Your task to perform on an android device: turn off sleep mode Image 0: 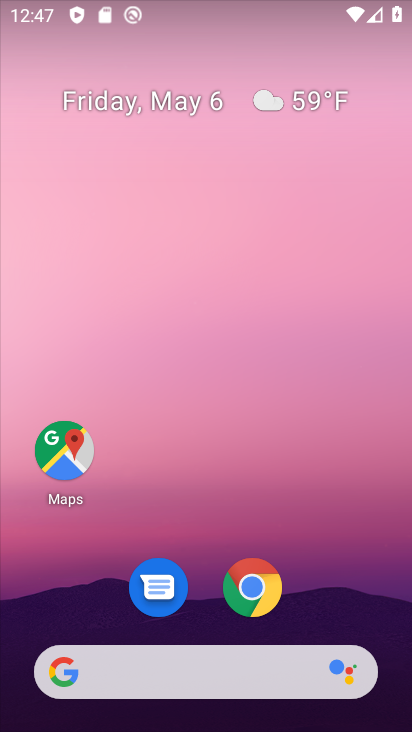
Step 0: drag from (266, 565) to (213, 168)
Your task to perform on an android device: turn off sleep mode Image 1: 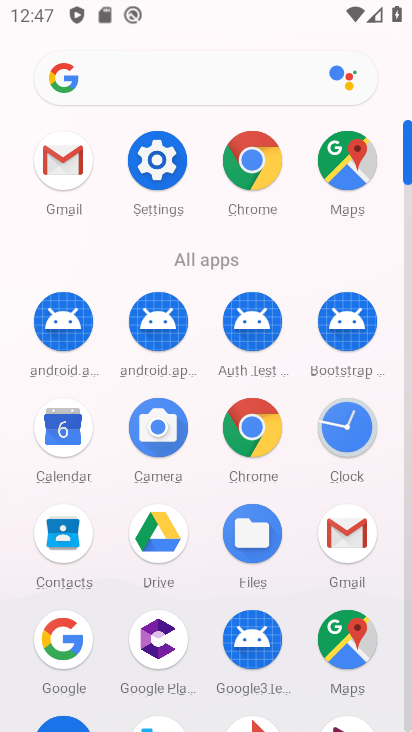
Step 1: click (133, 175)
Your task to perform on an android device: turn off sleep mode Image 2: 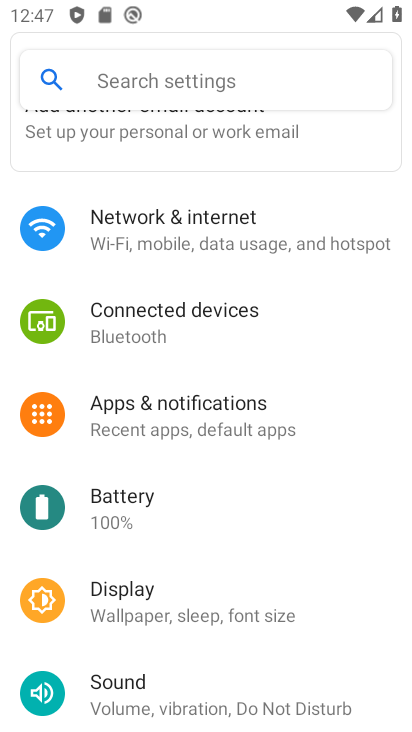
Step 2: drag from (169, 496) to (184, 396)
Your task to perform on an android device: turn off sleep mode Image 3: 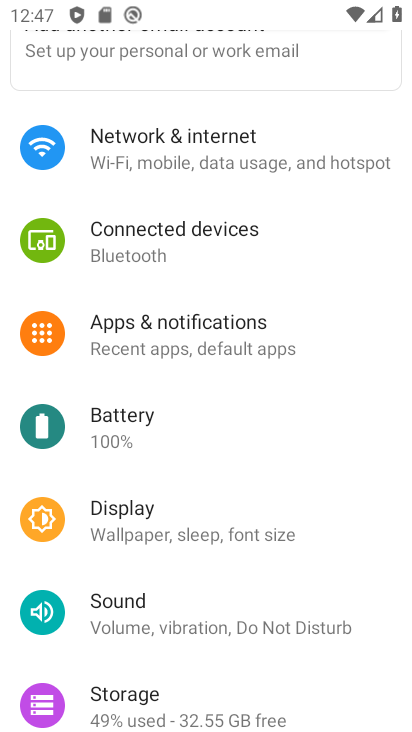
Step 3: click (186, 514)
Your task to perform on an android device: turn off sleep mode Image 4: 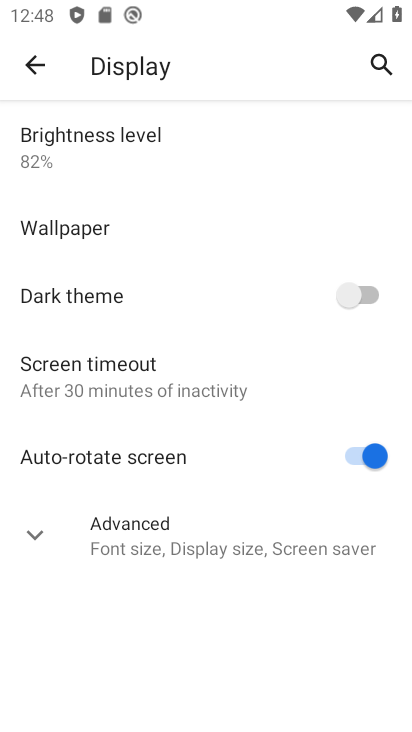
Step 4: click (158, 523)
Your task to perform on an android device: turn off sleep mode Image 5: 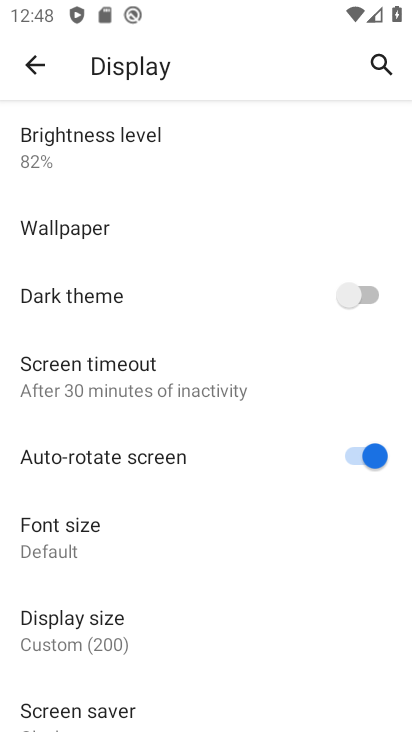
Step 5: task complete